Your task to perform on an android device: Go to Maps Image 0: 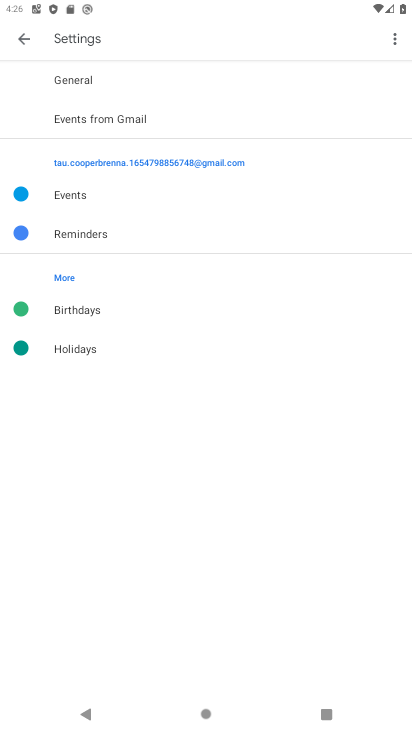
Step 0: drag from (268, 692) to (282, 223)
Your task to perform on an android device: Go to Maps Image 1: 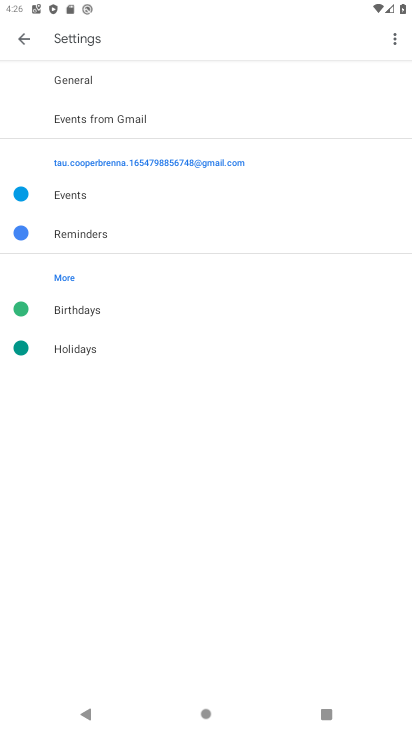
Step 1: click (21, 35)
Your task to perform on an android device: Go to Maps Image 2: 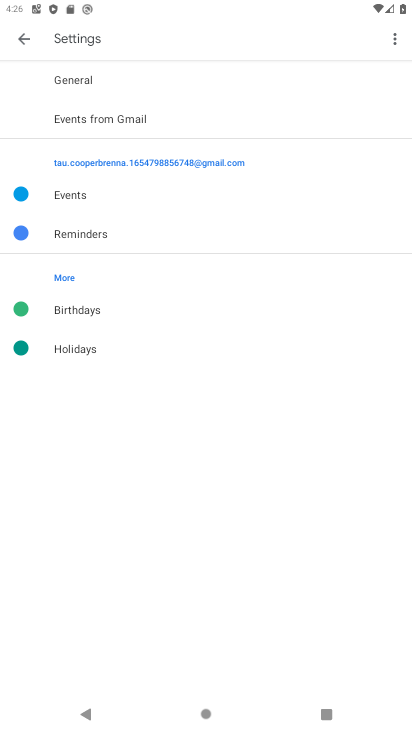
Step 2: click (21, 35)
Your task to perform on an android device: Go to Maps Image 3: 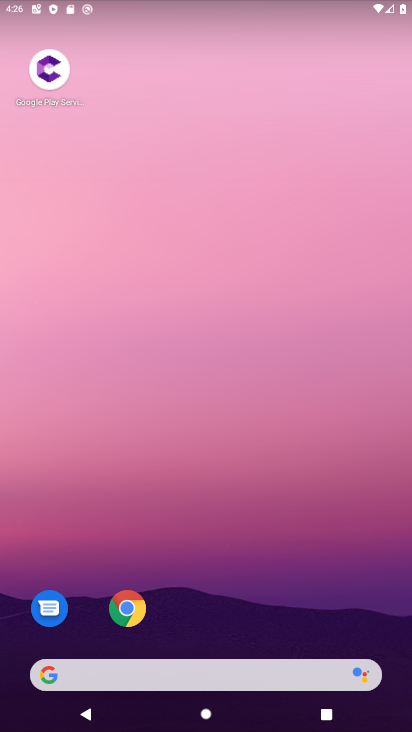
Step 3: drag from (242, 555) to (186, 185)
Your task to perform on an android device: Go to Maps Image 4: 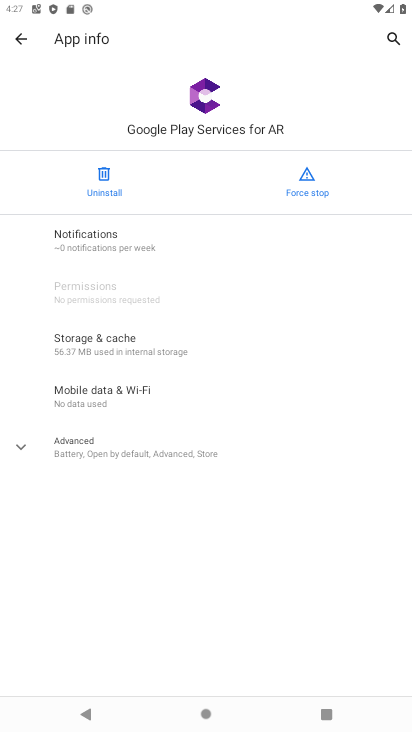
Step 4: click (17, 29)
Your task to perform on an android device: Go to Maps Image 5: 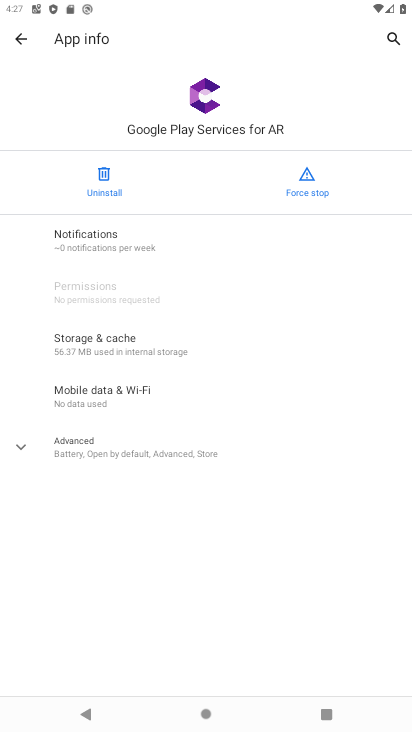
Step 5: click (17, 29)
Your task to perform on an android device: Go to Maps Image 6: 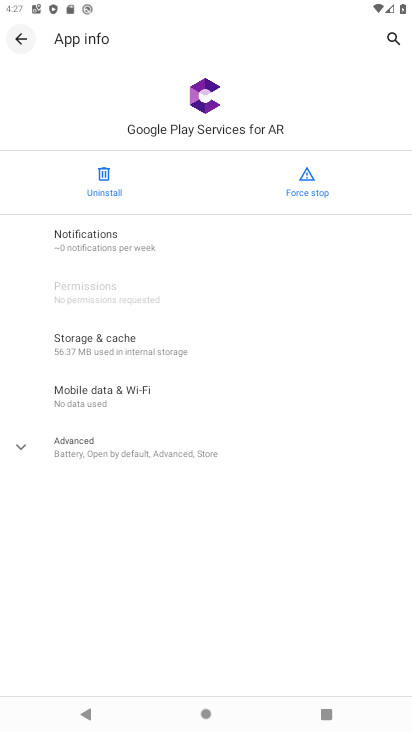
Step 6: click (17, 29)
Your task to perform on an android device: Go to Maps Image 7: 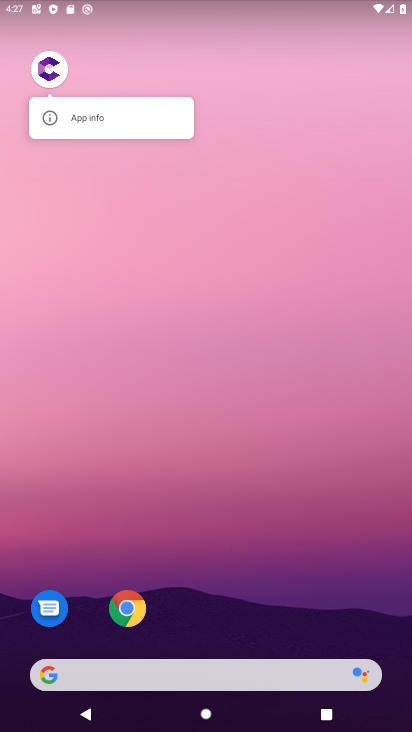
Step 7: drag from (269, 697) to (251, 296)
Your task to perform on an android device: Go to Maps Image 8: 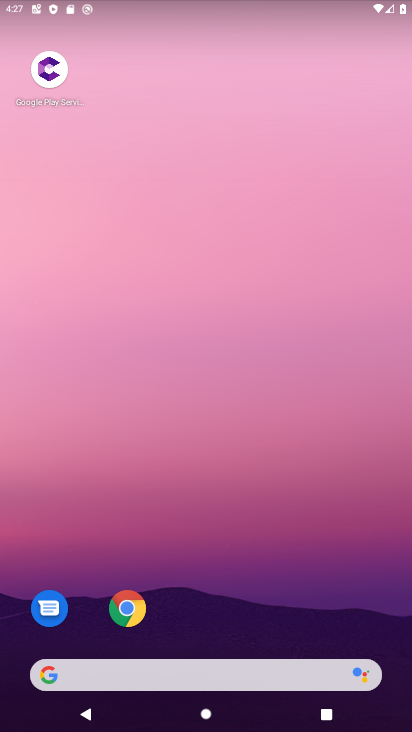
Step 8: drag from (278, 671) to (263, 124)
Your task to perform on an android device: Go to Maps Image 9: 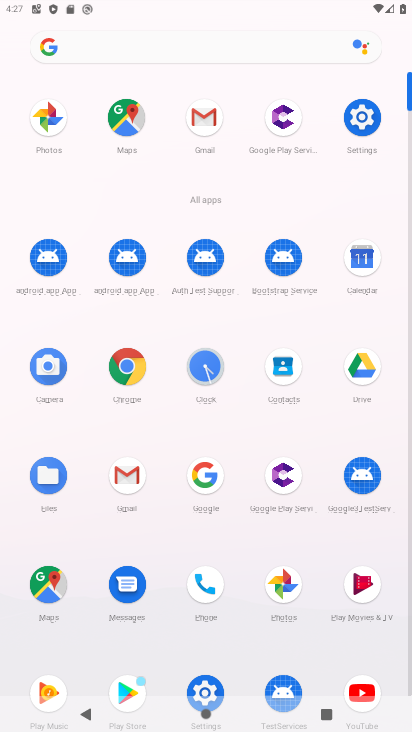
Step 9: click (188, 51)
Your task to perform on an android device: Go to Maps Image 10: 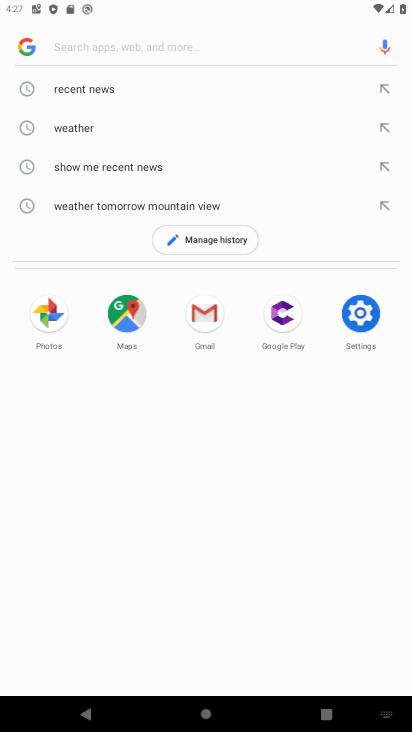
Step 10: click (124, 322)
Your task to perform on an android device: Go to Maps Image 11: 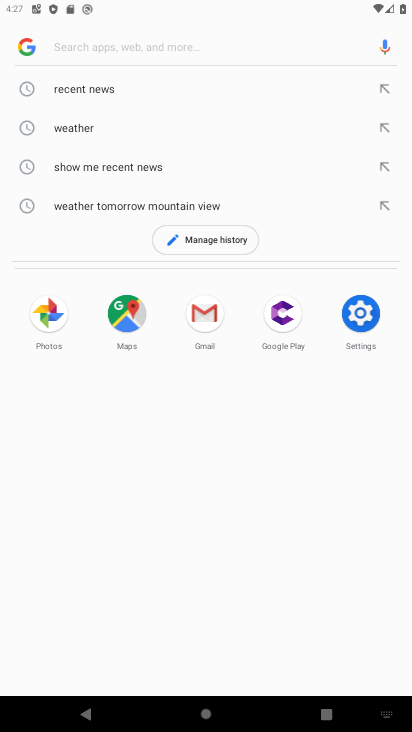
Step 11: click (124, 322)
Your task to perform on an android device: Go to Maps Image 12: 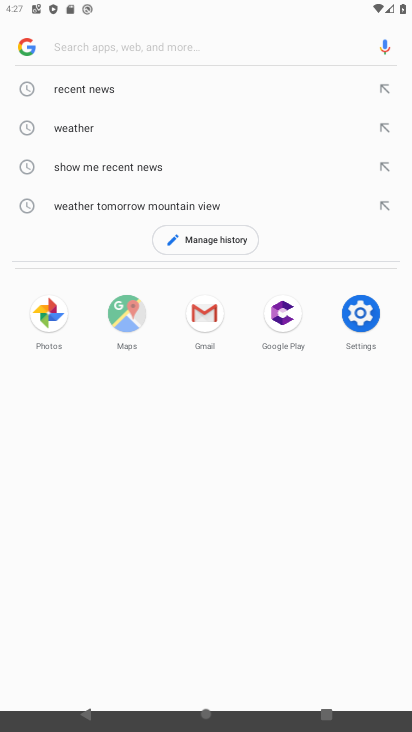
Step 12: click (123, 322)
Your task to perform on an android device: Go to Maps Image 13: 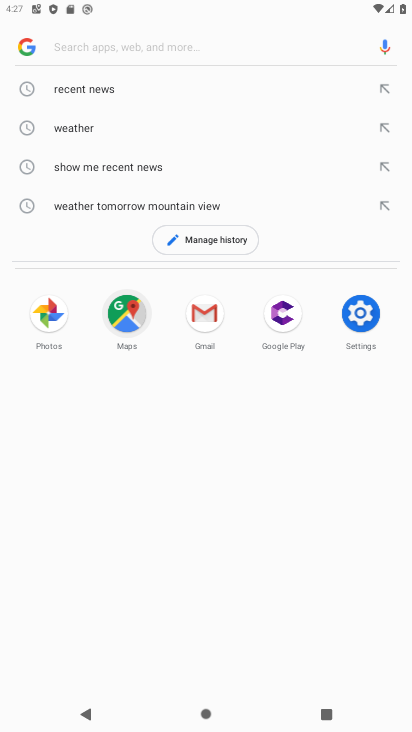
Step 13: click (128, 319)
Your task to perform on an android device: Go to Maps Image 14: 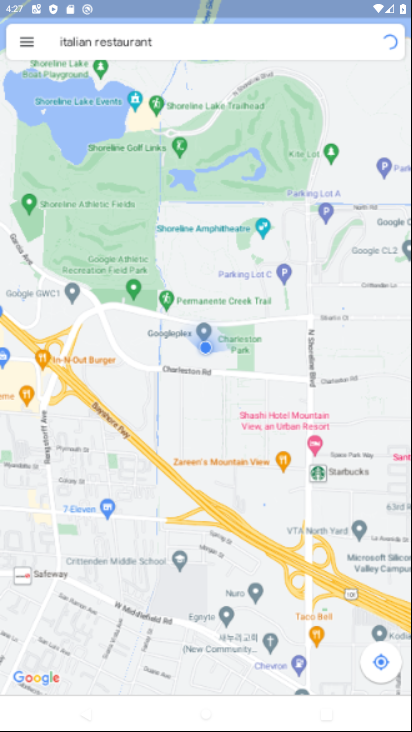
Step 14: click (129, 301)
Your task to perform on an android device: Go to Maps Image 15: 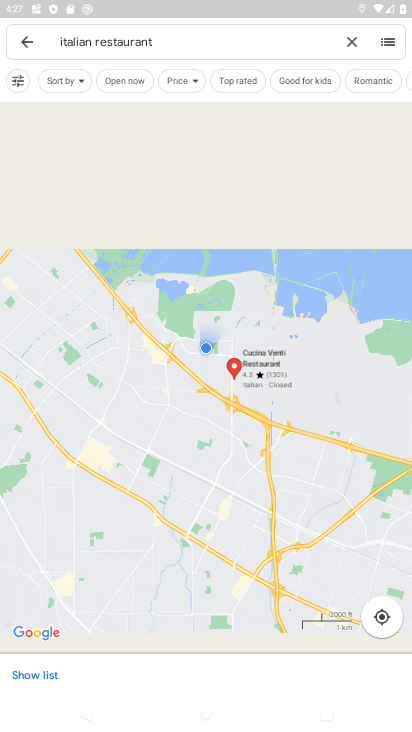
Step 15: task complete